Your task to perform on an android device: What's the weather today? Image 0: 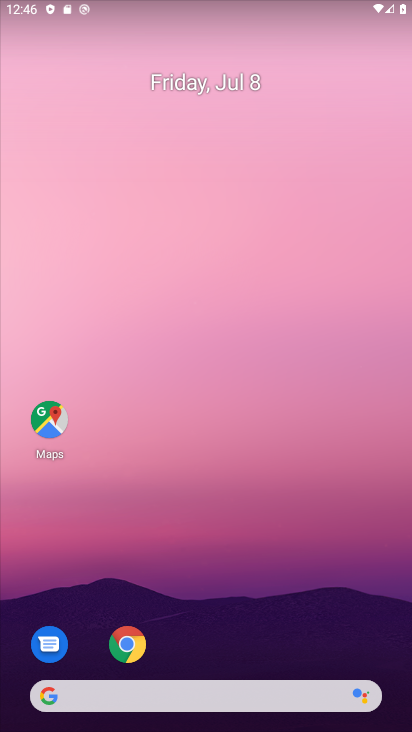
Step 0: drag from (238, 495) to (245, 152)
Your task to perform on an android device: What's the weather today? Image 1: 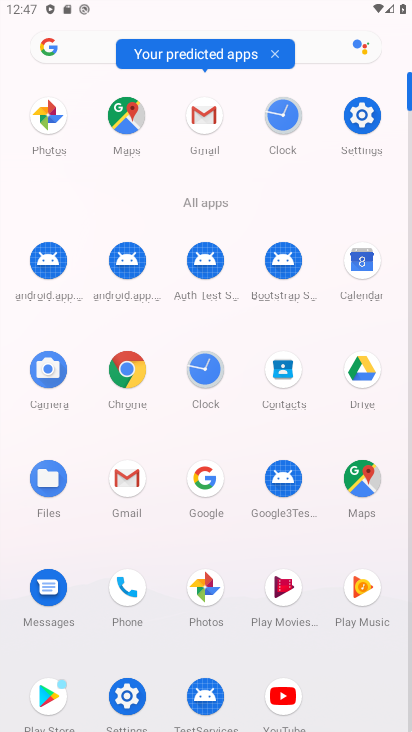
Step 1: click (205, 487)
Your task to perform on an android device: What's the weather today? Image 2: 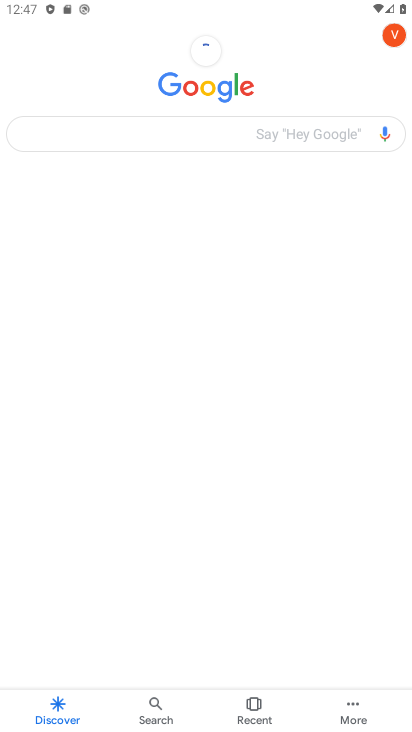
Step 2: click (164, 133)
Your task to perform on an android device: What's the weather today? Image 3: 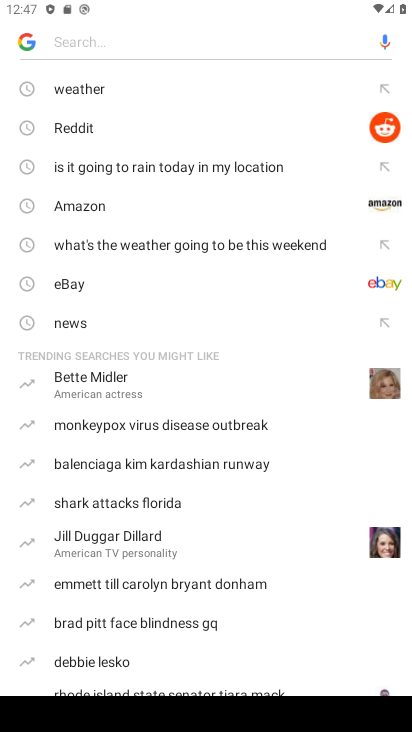
Step 3: type "wheather"
Your task to perform on an android device: What's the weather today? Image 4: 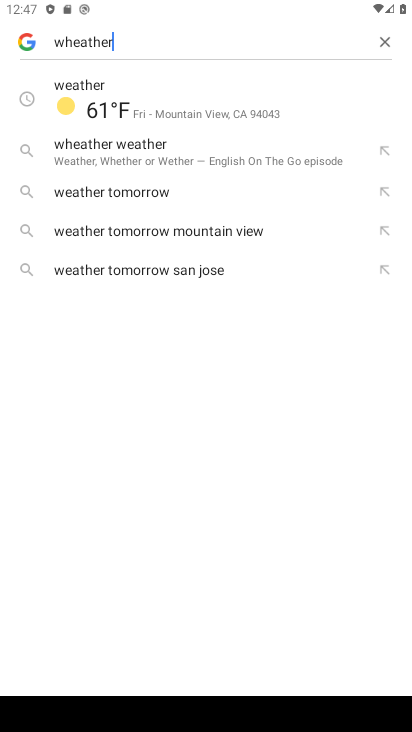
Step 4: task complete